Your task to perform on an android device: toggle javascript in the chrome app Image 0: 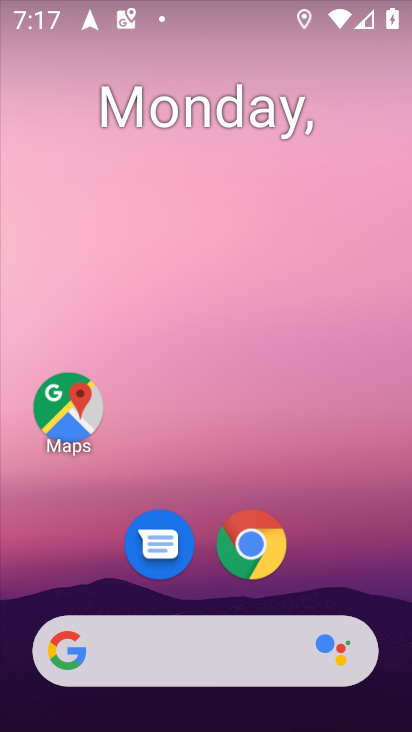
Step 0: drag from (307, 488) to (226, 35)
Your task to perform on an android device: toggle javascript in the chrome app Image 1: 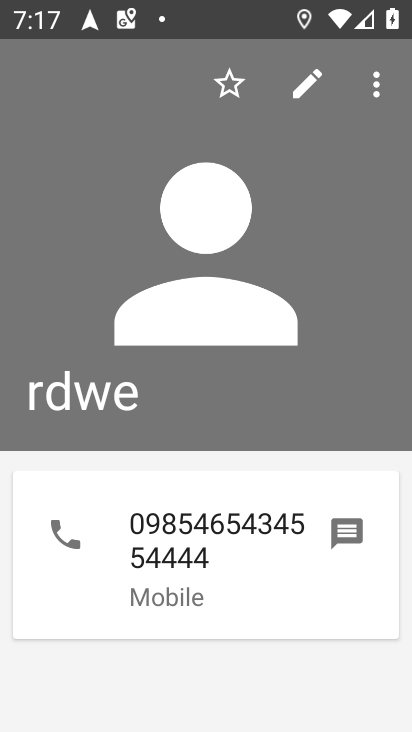
Step 1: press home button
Your task to perform on an android device: toggle javascript in the chrome app Image 2: 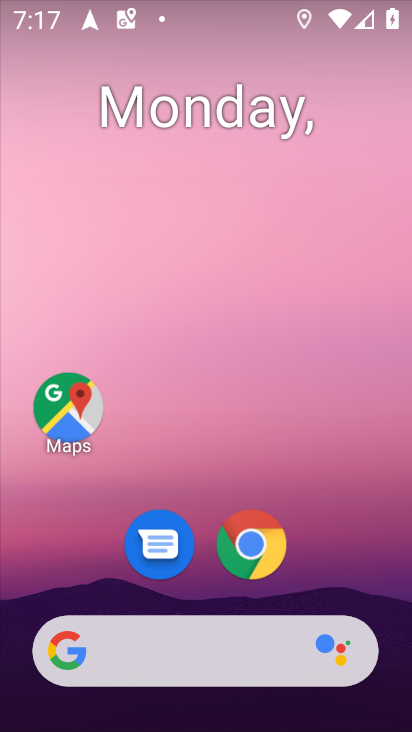
Step 2: click (254, 544)
Your task to perform on an android device: toggle javascript in the chrome app Image 3: 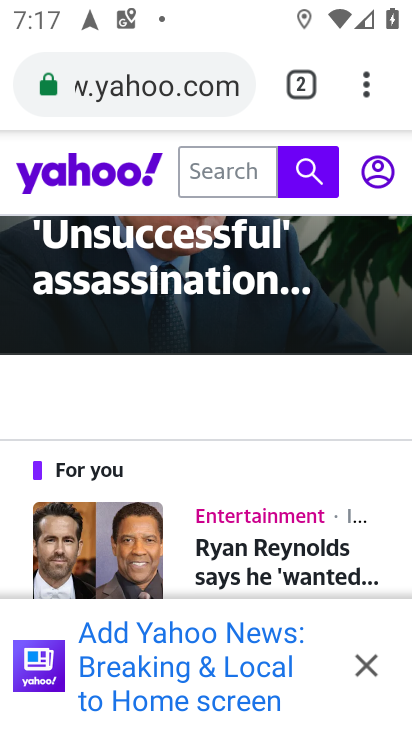
Step 3: click (367, 72)
Your task to perform on an android device: toggle javascript in the chrome app Image 4: 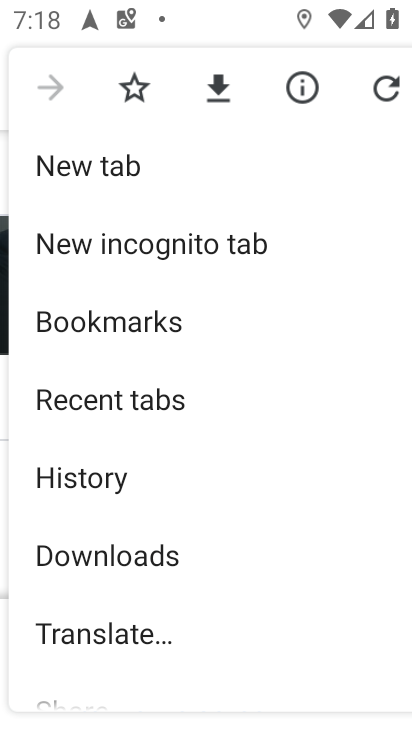
Step 4: drag from (161, 519) to (147, 231)
Your task to perform on an android device: toggle javascript in the chrome app Image 5: 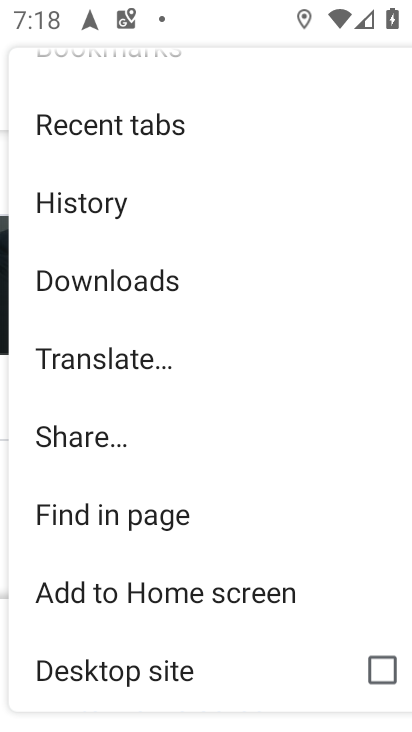
Step 5: drag from (272, 499) to (252, 161)
Your task to perform on an android device: toggle javascript in the chrome app Image 6: 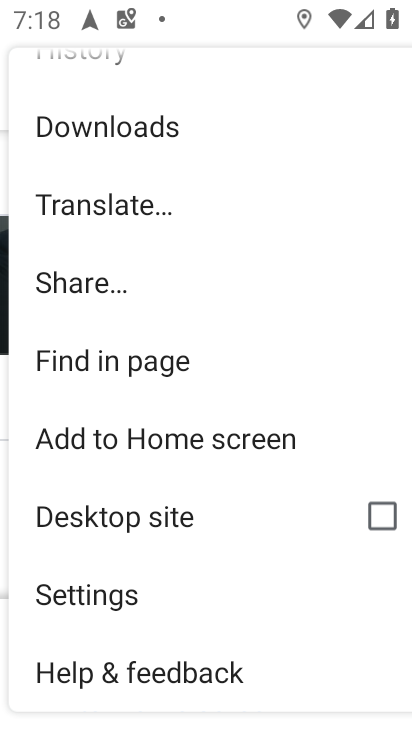
Step 6: click (93, 593)
Your task to perform on an android device: toggle javascript in the chrome app Image 7: 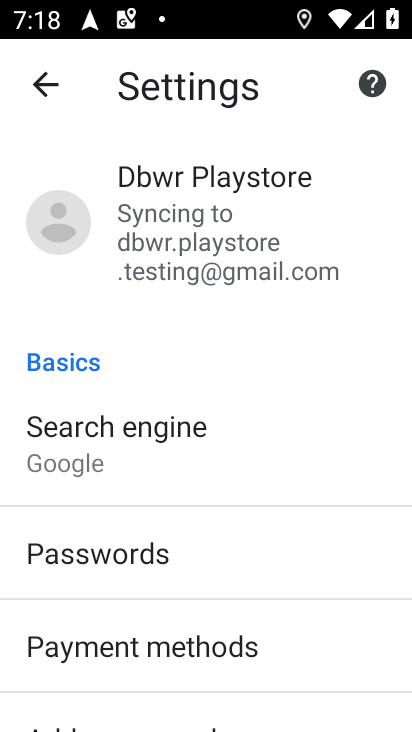
Step 7: drag from (264, 538) to (238, 187)
Your task to perform on an android device: toggle javascript in the chrome app Image 8: 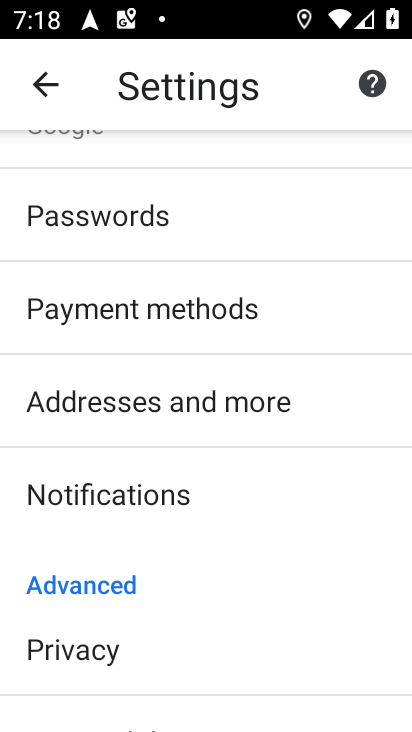
Step 8: drag from (212, 570) to (209, 194)
Your task to perform on an android device: toggle javascript in the chrome app Image 9: 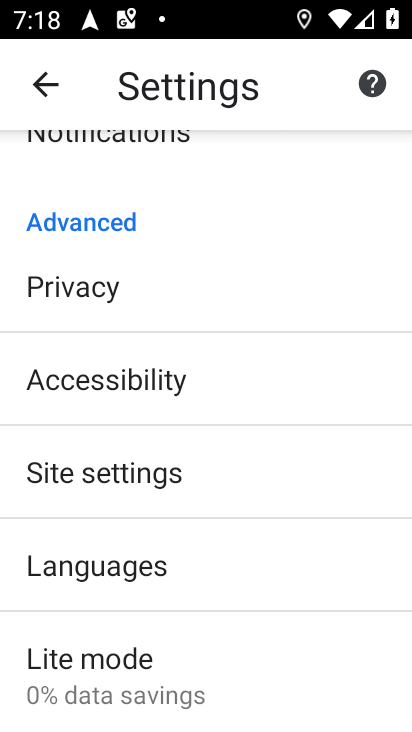
Step 9: click (119, 471)
Your task to perform on an android device: toggle javascript in the chrome app Image 10: 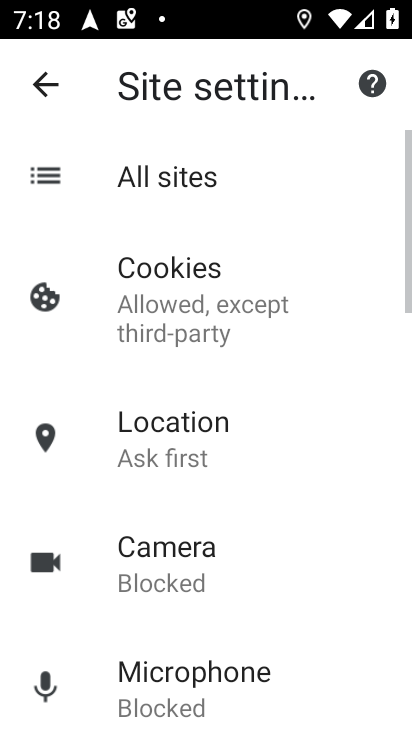
Step 10: drag from (341, 511) to (299, 77)
Your task to perform on an android device: toggle javascript in the chrome app Image 11: 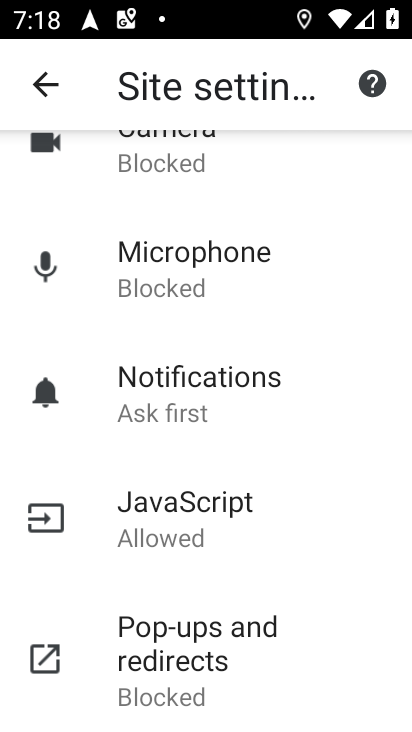
Step 11: click (193, 492)
Your task to perform on an android device: toggle javascript in the chrome app Image 12: 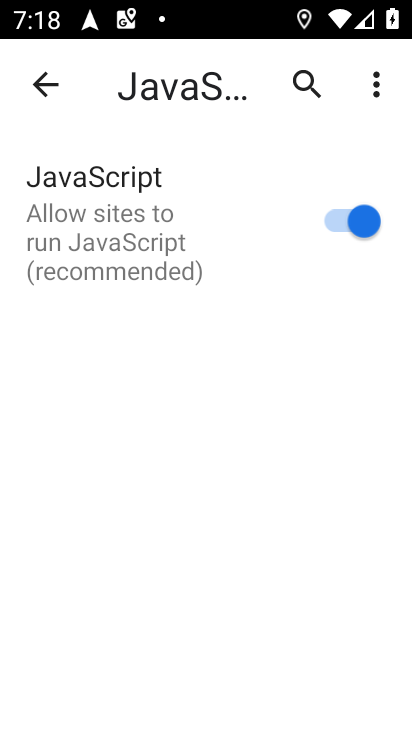
Step 12: click (360, 217)
Your task to perform on an android device: toggle javascript in the chrome app Image 13: 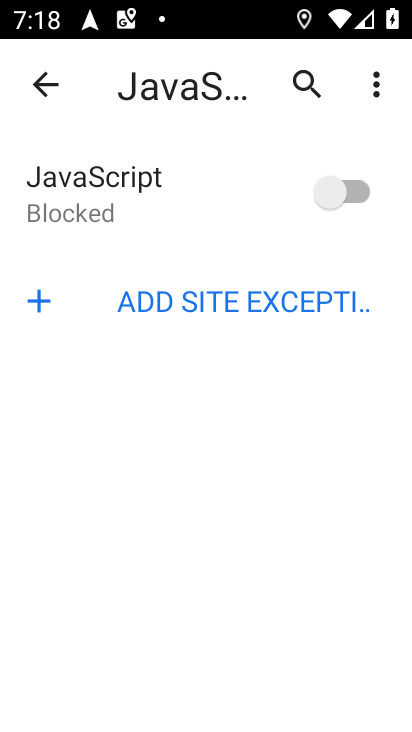
Step 13: task complete